Your task to perform on an android device: toggle notification dots Image 0: 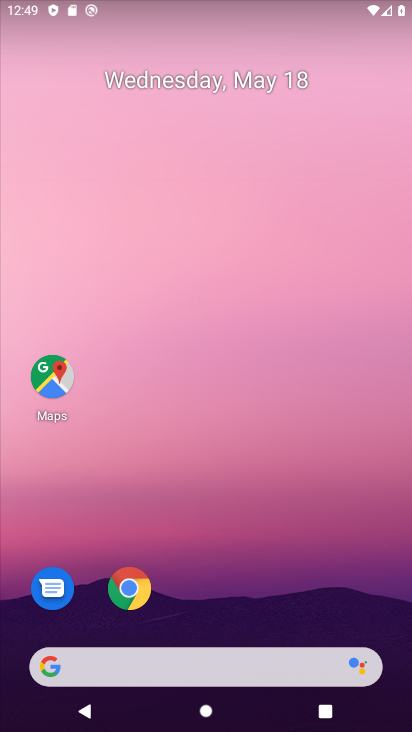
Step 0: drag from (354, 559) to (332, 99)
Your task to perform on an android device: toggle notification dots Image 1: 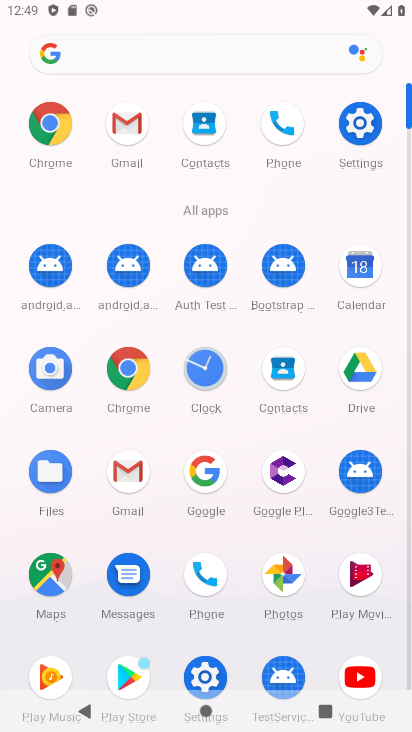
Step 1: drag from (234, 613) to (232, 334)
Your task to perform on an android device: toggle notification dots Image 2: 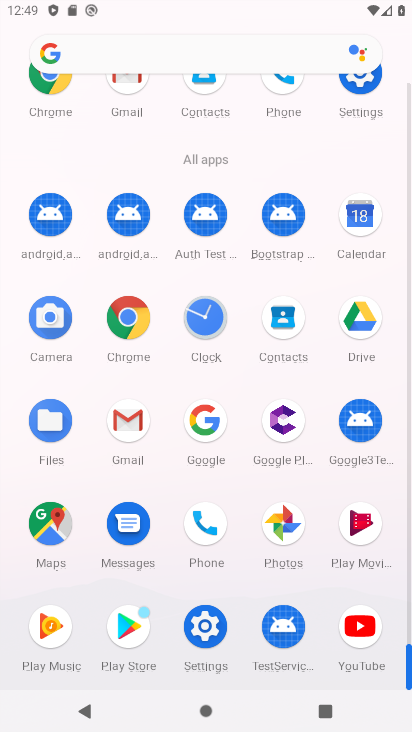
Step 2: click (209, 614)
Your task to perform on an android device: toggle notification dots Image 3: 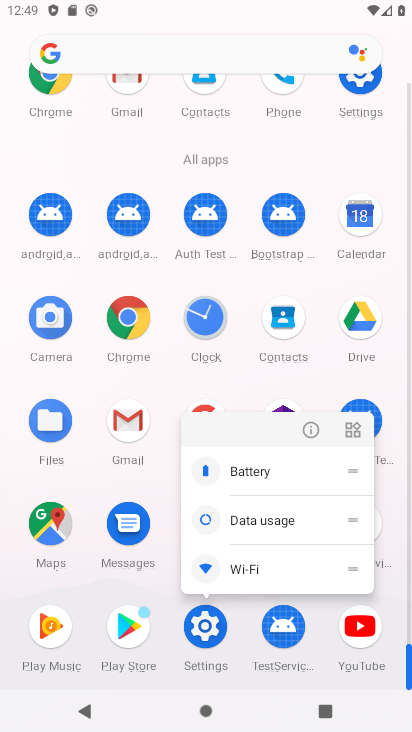
Step 3: click (197, 636)
Your task to perform on an android device: toggle notification dots Image 4: 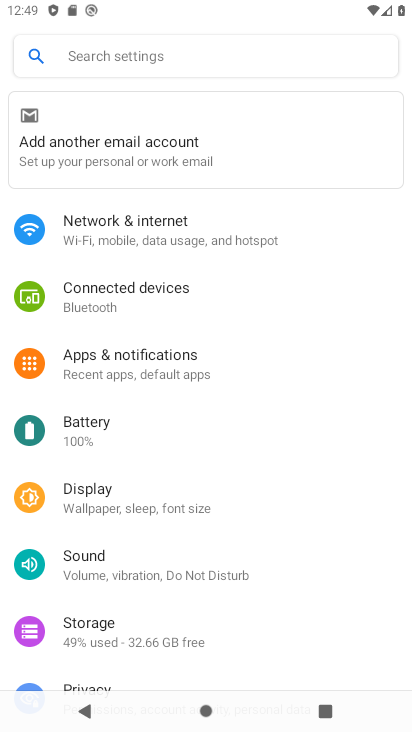
Step 4: drag from (269, 581) to (286, 422)
Your task to perform on an android device: toggle notification dots Image 5: 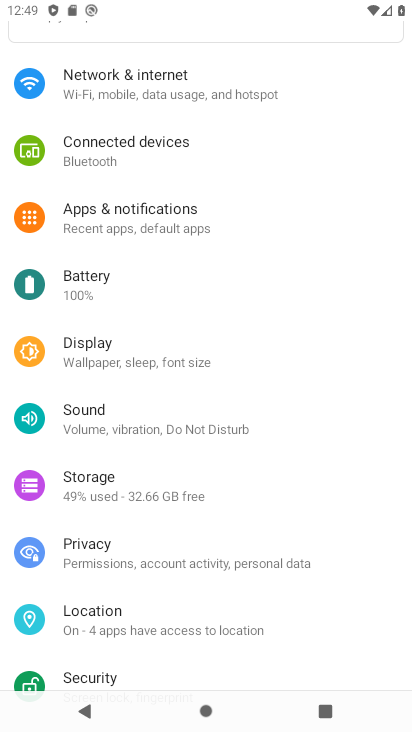
Step 5: drag from (303, 625) to (312, 441)
Your task to perform on an android device: toggle notification dots Image 6: 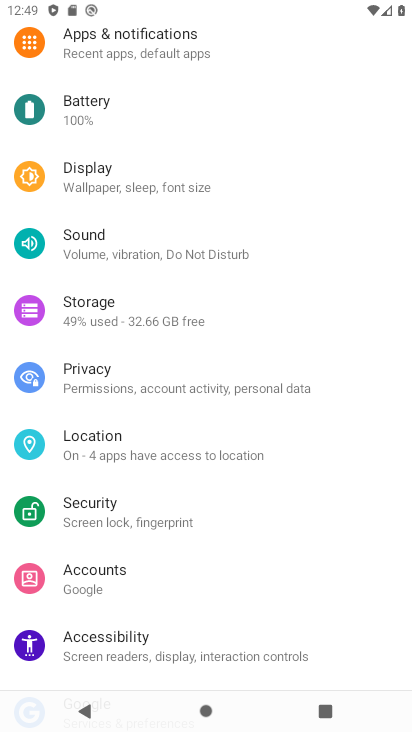
Step 6: drag from (310, 584) to (300, 403)
Your task to perform on an android device: toggle notification dots Image 7: 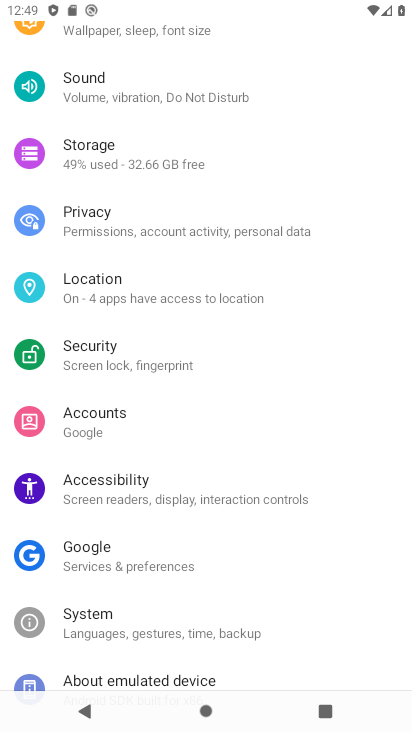
Step 7: drag from (321, 625) to (322, 462)
Your task to perform on an android device: toggle notification dots Image 8: 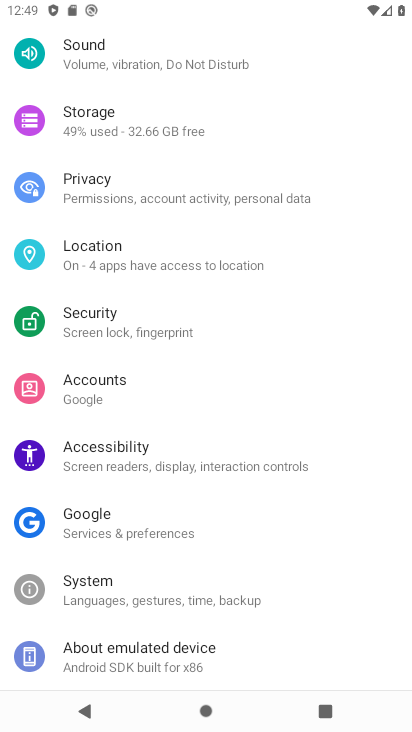
Step 8: drag from (333, 289) to (317, 486)
Your task to perform on an android device: toggle notification dots Image 9: 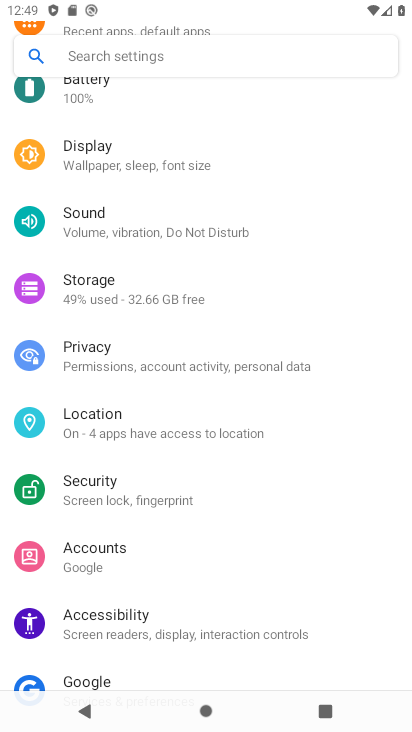
Step 9: drag from (342, 241) to (318, 422)
Your task to perform on an android device: toggle notification dots Image 10: 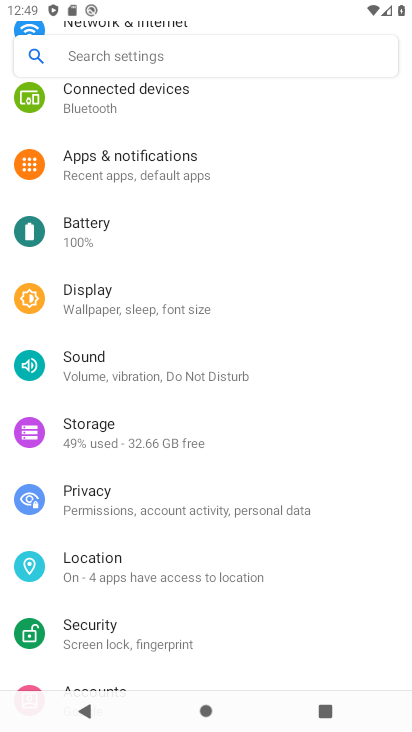
Step 10: drag from (327, 243) to (330, 378)
Your task to perform on an android device: toggle notification dots Image 11: 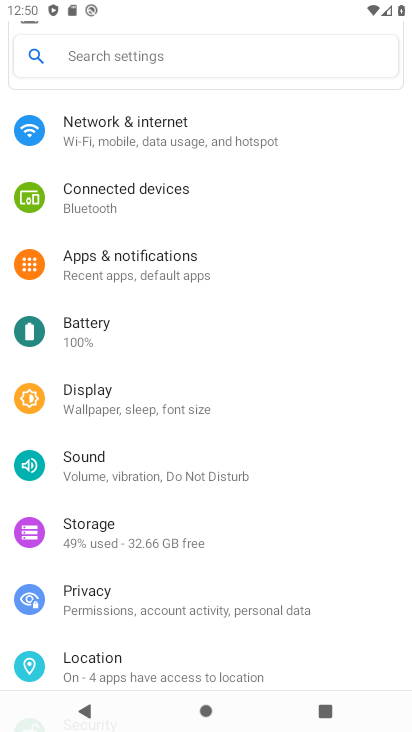
Step 11: click (178, 270)
Your task to perform on an android device: toggle notification dots Image 12: 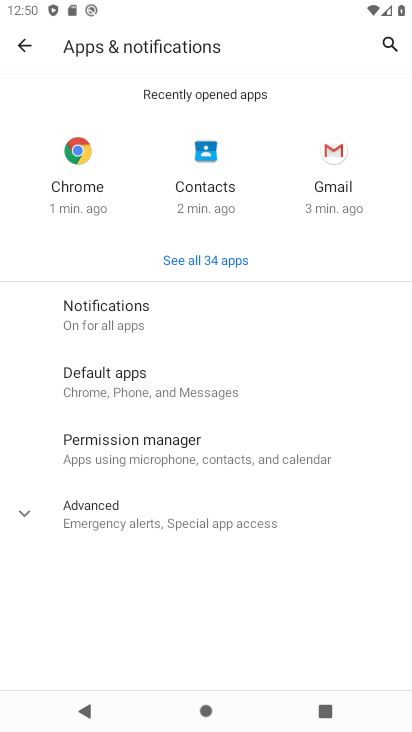
Step 12: click (132, 318)
Your task to perform on an android device: toggle notification dots Image 13: 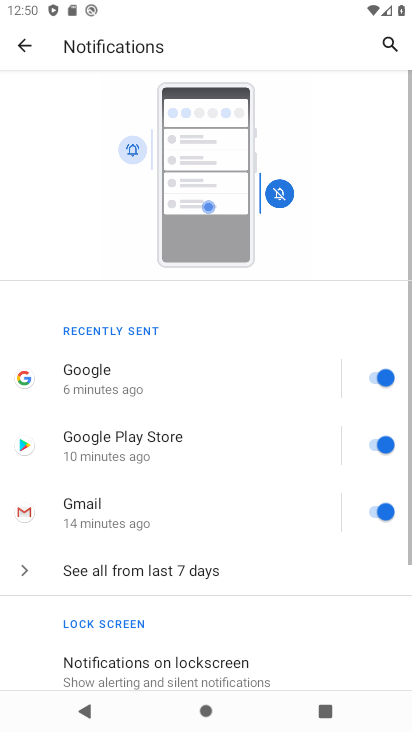
Step 13: drag from (319, 615) to (323, 468)
Your task to perform on an android device: toggle notification dots Image 14: 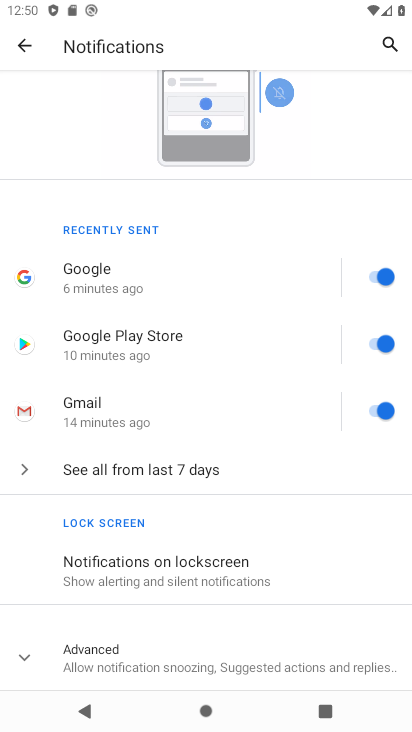
Step 14: drag from (298, 606) to (305, 462)
Your task to perform on an android device: toggle notification dots Image 15: 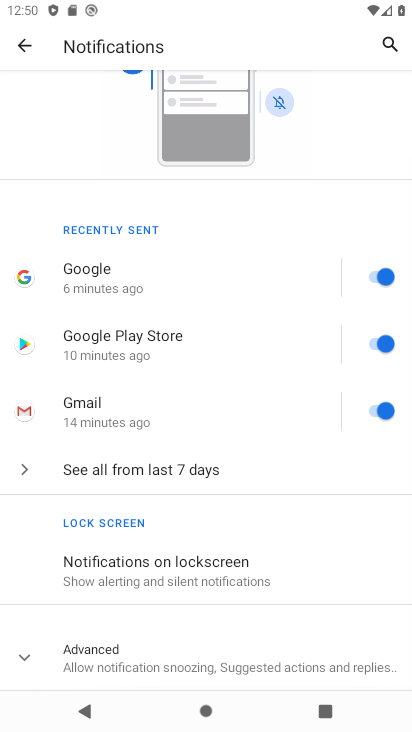
Step 15: click (292, 653)
Your task to perform on an android device: toggle notification dots Image 16: 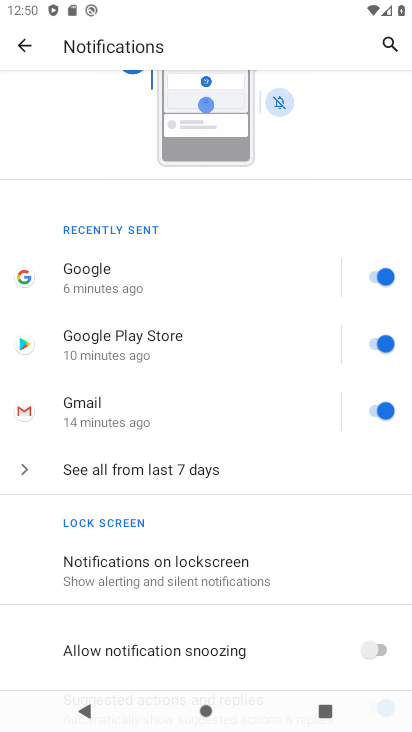
Step 16: task complete